Your task to perform on an android device: Check the news Image 0: 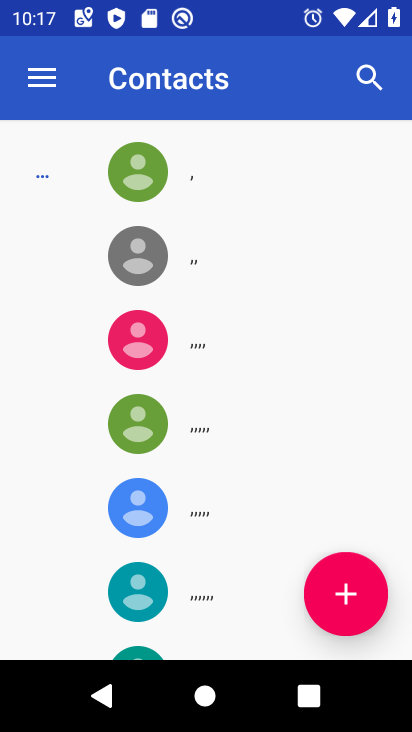
Step 0: press home button
Your task to perform on an android device: Check the news Image 1: 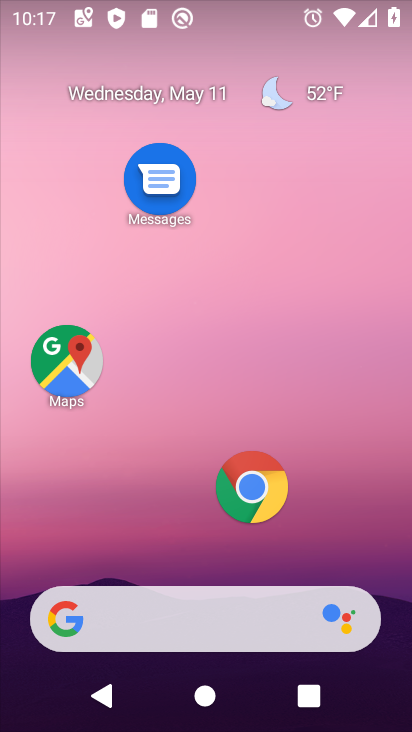
Step 1: drag from (190, 557) to (197, 151)
Your task to perform on an android device: Check the news Image 2: 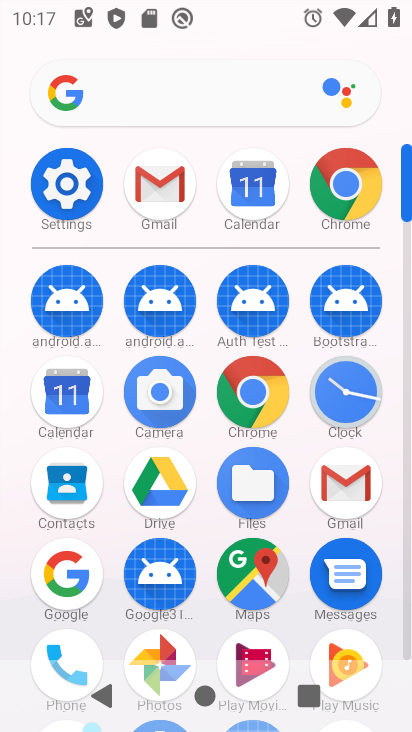
Step 2: click (72, 561)
Your task to perform on an android device: Check the news Image 3: 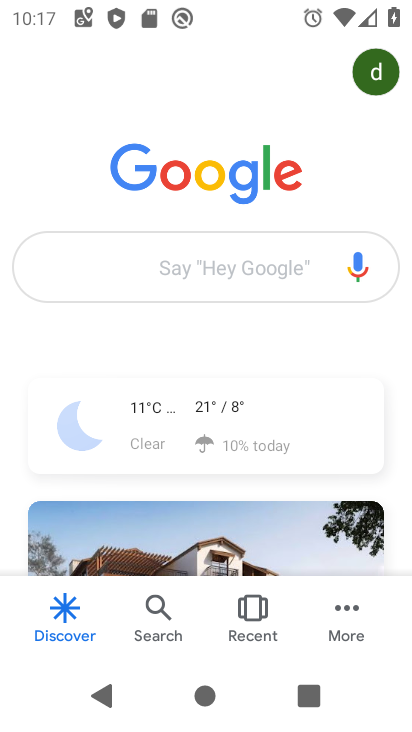
Step 3: click (132, 247)
Your task to perform on an android device: Check the news Image 4: 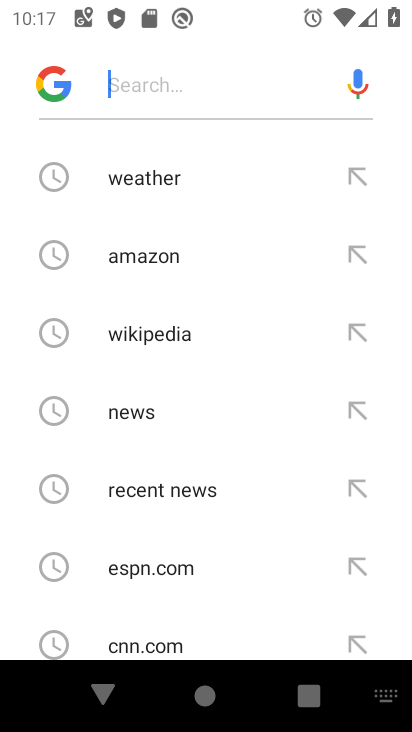
Step 4: click (155, 426)
Your task to perform on an android device: Check the news Image 5: 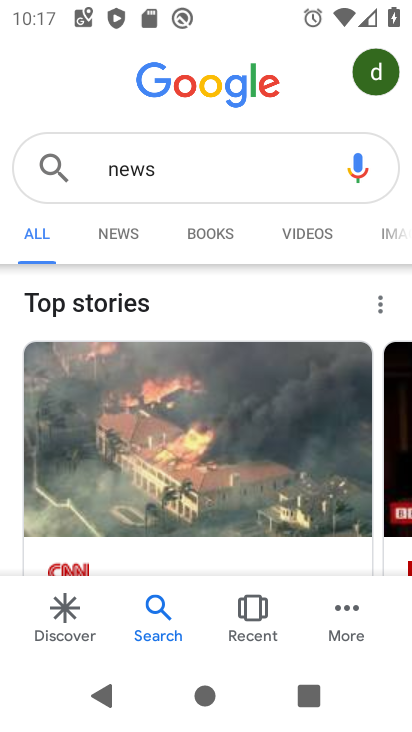
Step 5: click (116, 242)
Your task to perform on an android device: Check the news Image 6: 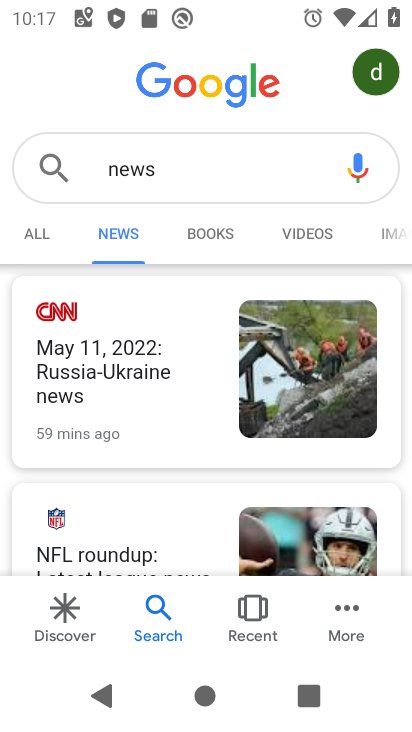
Step 6: task complete